Your task to perform on an android device: What's the weather going to be this weekend? Image 0: 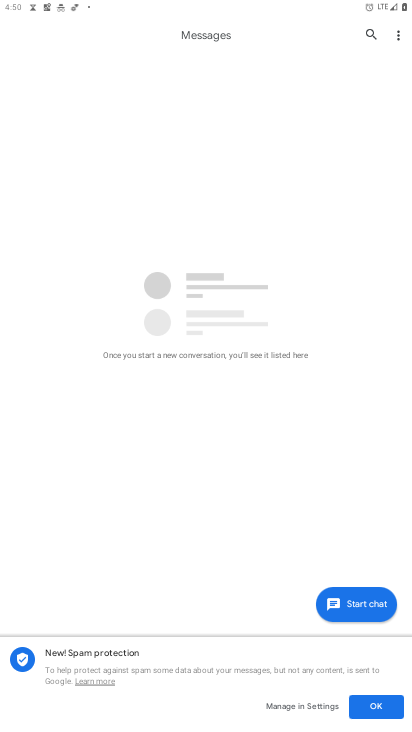
Step 0: press home button
Your task to perform on an android device: What's the weather going to be this weekend? Image 1: 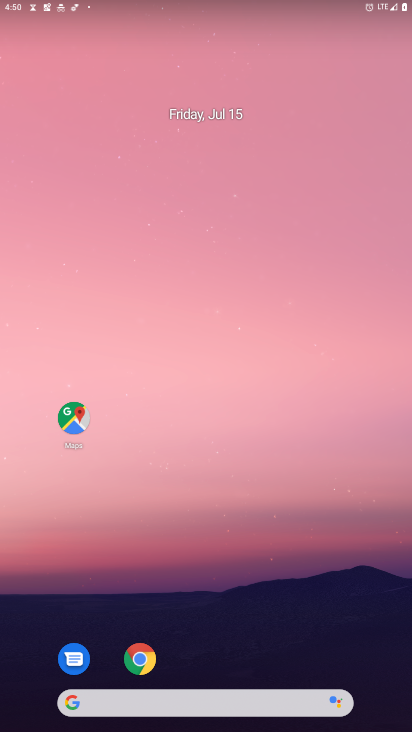
Step 1: drag from (367, 636) to (342, 158)
Your task to perform on an android device: What's the weather going to be this weekend? Image 2: 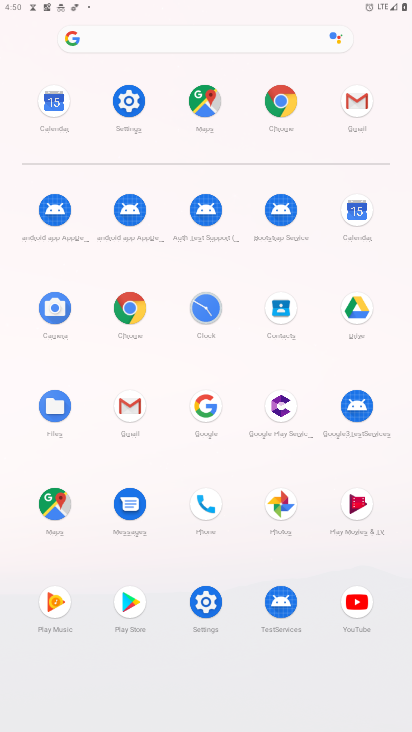
Step 2: click (142, 302)
Your task to perform on an android device: What's the weather going to be this weekend? Image 3: 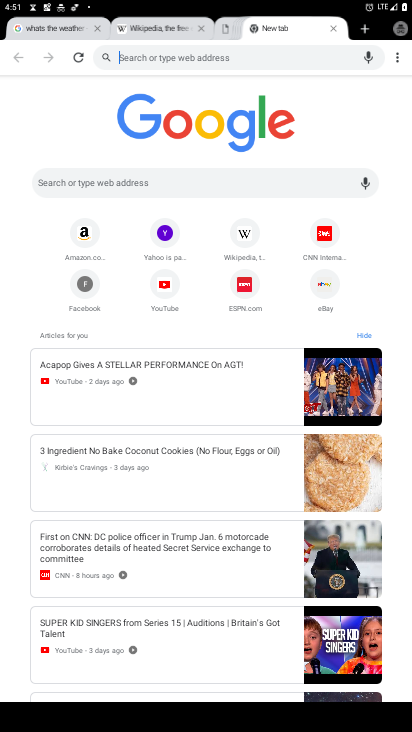
Step 3: type "weather going to be this weekend"
Your task to perform on an android device: What's the weather going to be this weekend? Image 4: 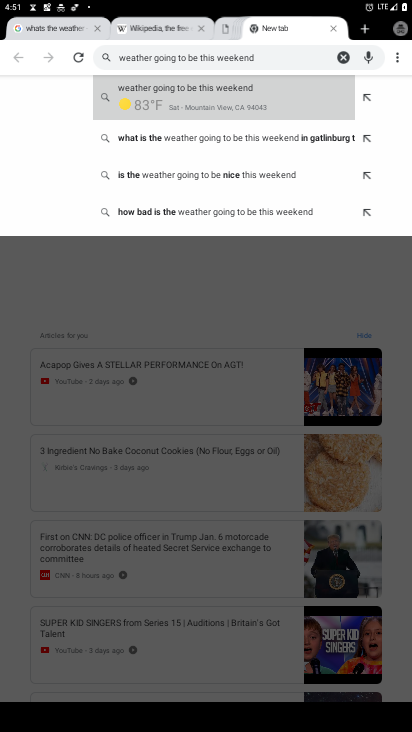
Step 4: click (236, 86)
Your task to perform on an android device: What's the weather going to be this weekend? Image 5: 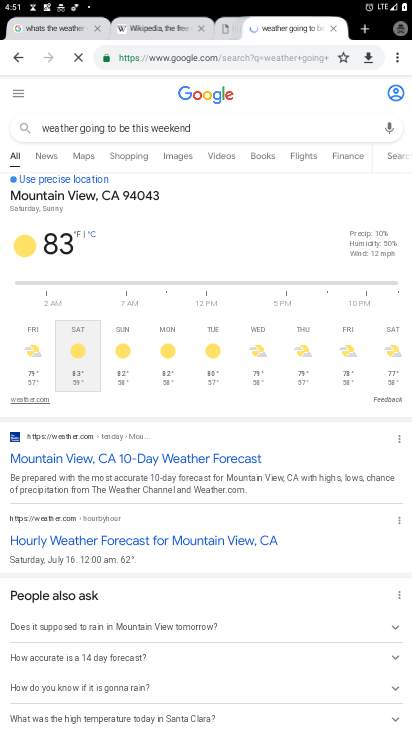
Step 5: task complete